Your task to perform on an android device: Open my contact list Image 0: 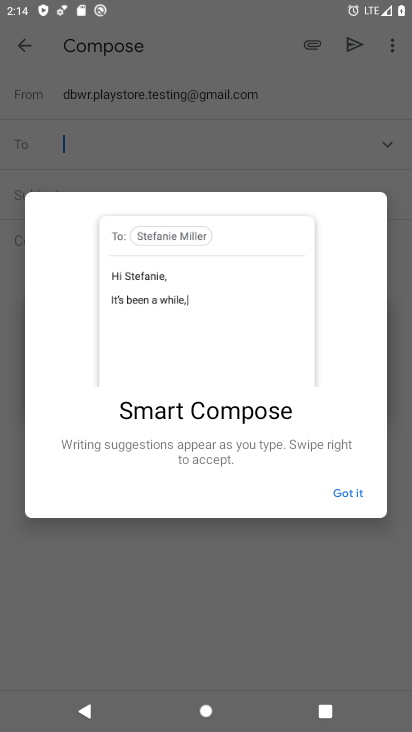
Step 0: press home button
Your task to perform on an android device: Open my contact list Image 1: 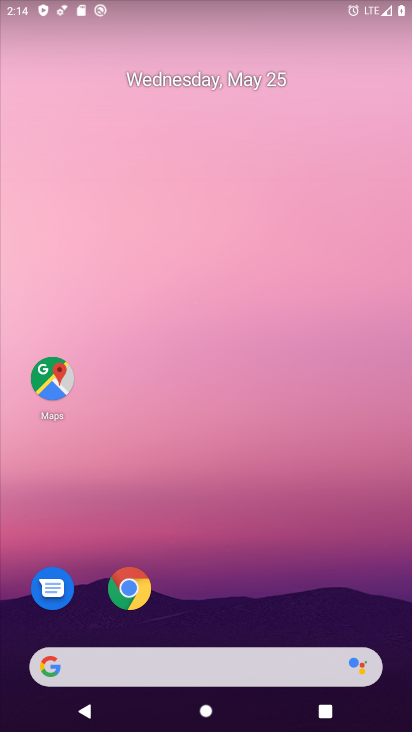
Step 1: drag from (237, 488) to (229, 52)
Your task to perform on an android device: Open my contact list Image 2: 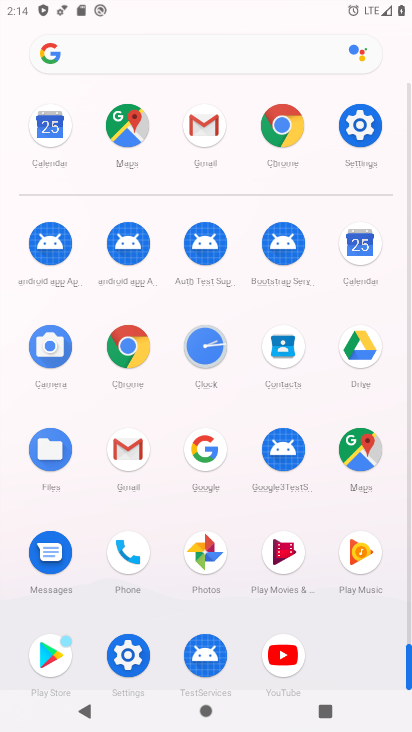
Step 2: click (127, 541)
Your task to perform on an android device: Open my contact list Image 3: 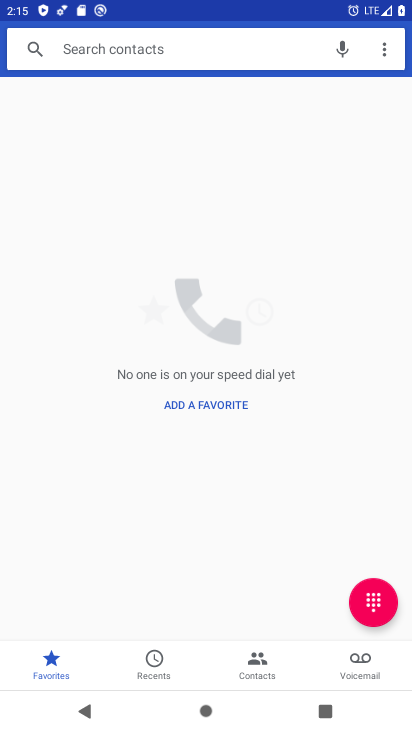
Step 3: click (252, 645)
Your task to perform on an android device: Open my contact list Image 4: 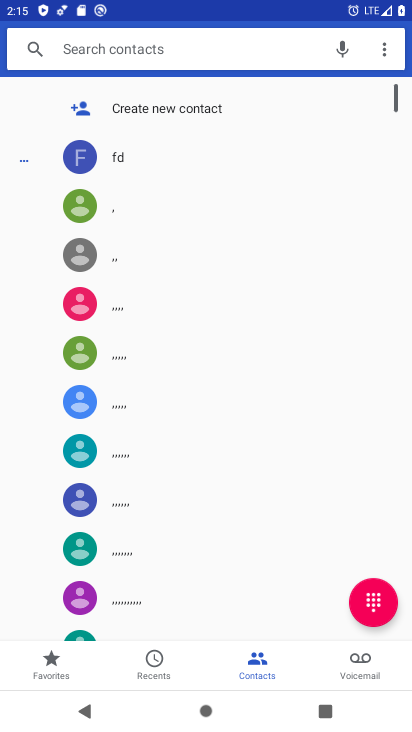
Step 4: task complete